Your task to perform on an android device: Do I have any events tomorrow? Image 0: 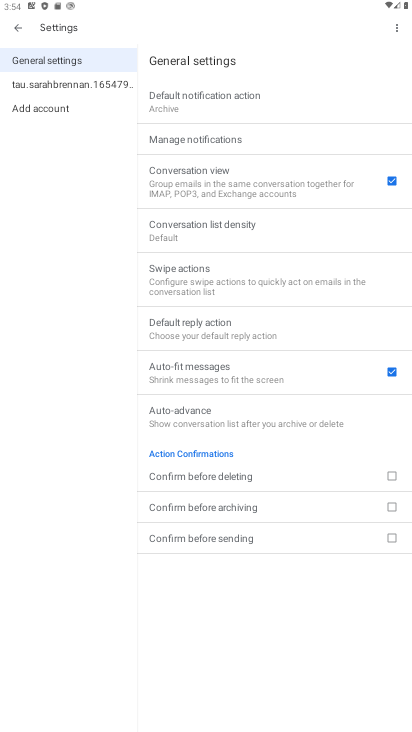
Step 0: press home button
Your task to perform on an android device: Do I have any events tomorrow? Image 1: 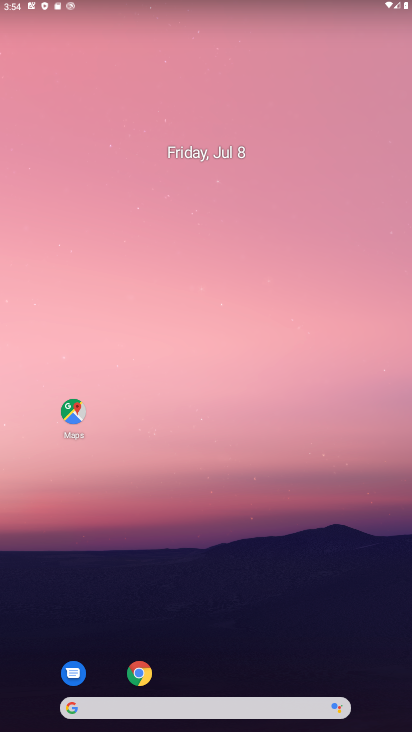
Step 1: drag from (232, 680) to (246, 85)
Your task to perform on an android device: Do I have any events tomorrow? Image 2: 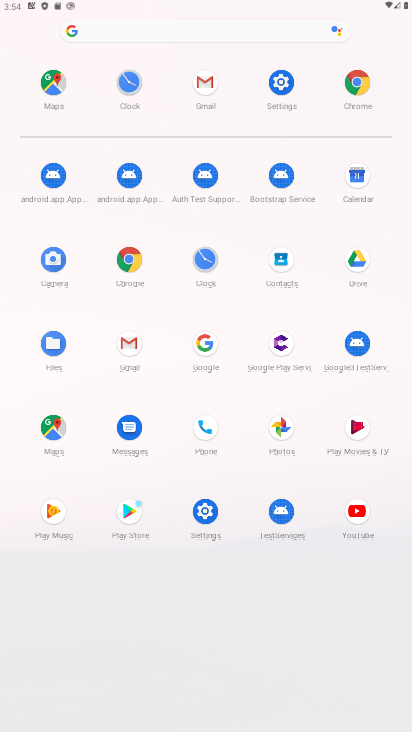
Step 2: click (361, 174)
Your task to perform on an android device: Do I have any events tomorrow? Image 3: 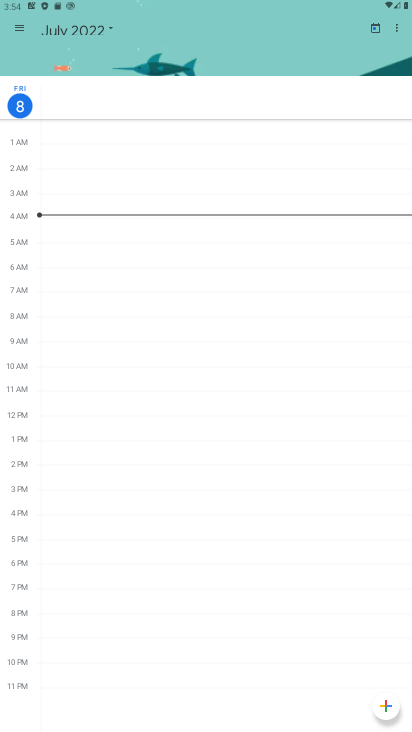
Step 3: task complete